Your task to perform on an android device: open app "The Home Depot" (install if not already installed) and go to login screen Image 0: 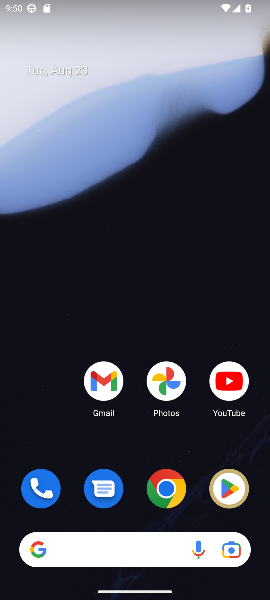
Step 0: click (216, 486)
Your task to perform on an android device: open app "The Home Depot" (install if not already installed) and go to login screen Image 1: 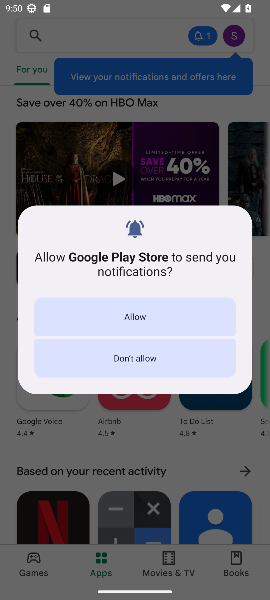
Step 1: click (132, 320)
Your task to perform on an android device: open app "The Home Depot" (install if not already installed) and go to login screen Image 2: 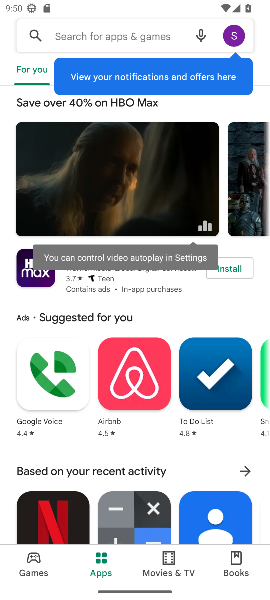
Step 2: click (103, 30)
Your task to perform on an android device: open app "The Home Depot" (install if not already installed) and go to login screen Image 3: 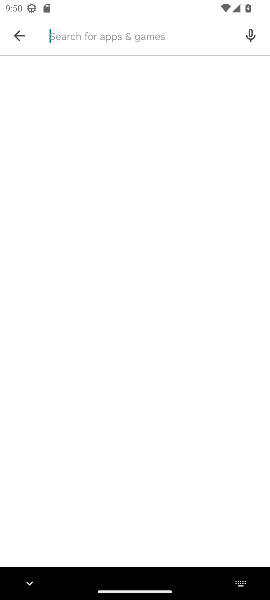
Step 3: type "The Home Depot"
Your task to perform on an android device: open app "The Home Depot" (install if not already installed) and go to login screen Image 4: 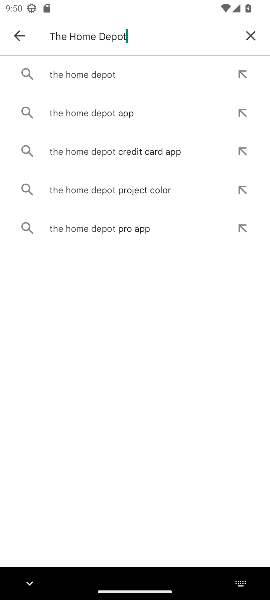
Step 4: click (92, 77)
Your task to perform on an android device: open app "The Home Depot" (install if not already installed) and go to login screen Image 5: 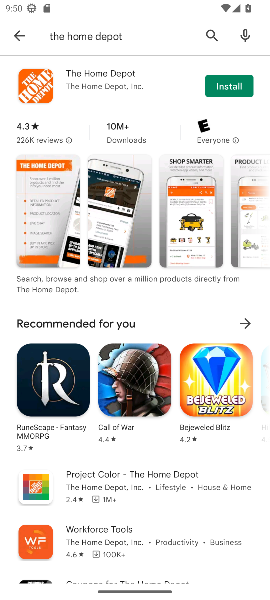
Step 5: click (222, 79)
Your task to perform on an android device: open app "The Home Depot" (install if not already installed) and go to login screen Image 6: 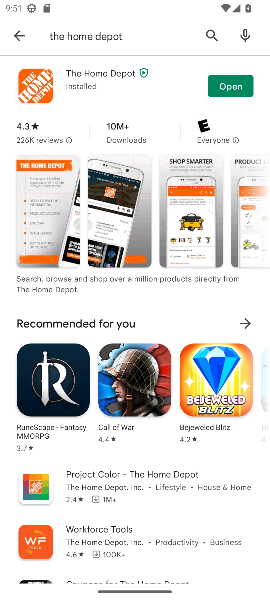
Step 6: click (217, 88)
Your task to perform on an android device: open app "The Home Depot" (install if not already installed) and go to login screen Image 7: 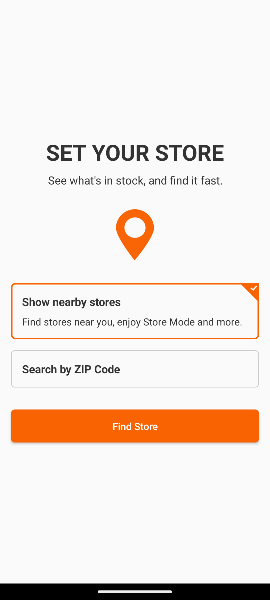
Step 7: task complete